Your task to perform on an android device: toggle data saver in the chrome app Image 0: 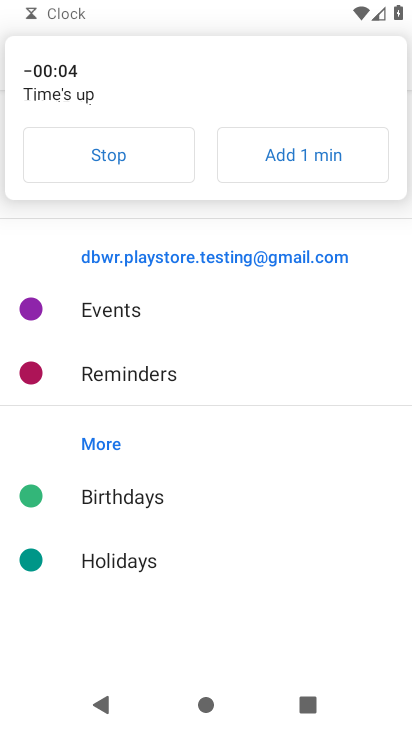
Step 0: press home button
Your task to perform on an android device: toggle data saver in the chrome app Image 1: 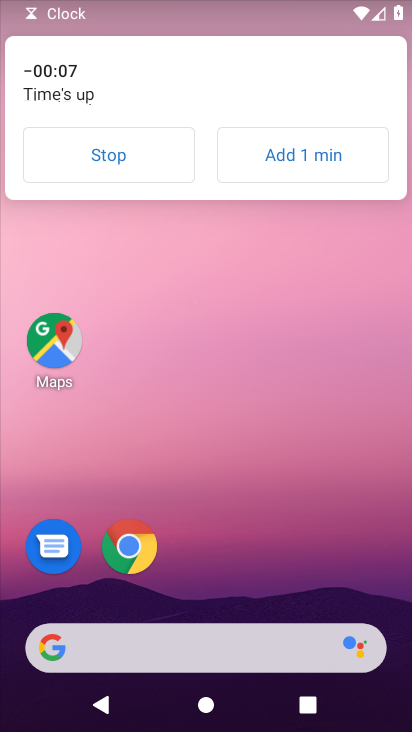
Step 1: click (132, 149)
Your task to perform on an android device: toggle data saver in the chrome app Image 2: 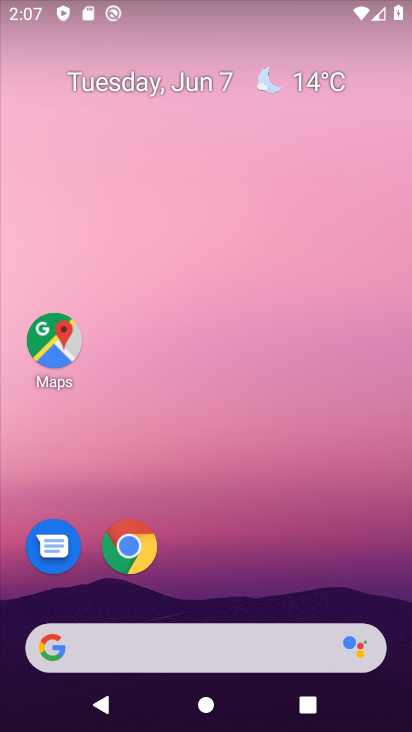
Step 2: click (134, 561)
Your task to perform on an android device: toggle data saver in the chrome app Image 3: 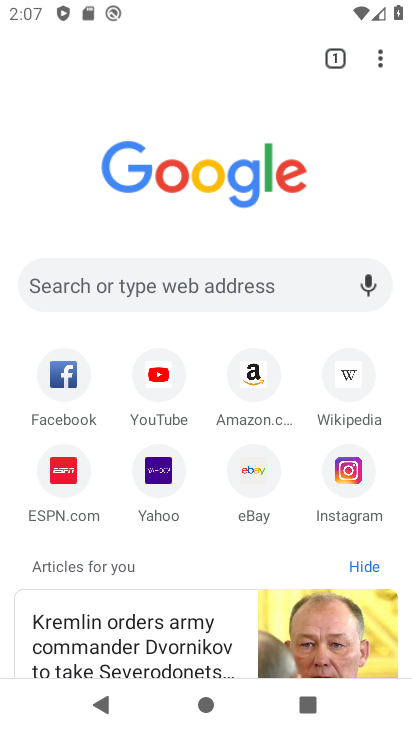
Step 3: click (389, 57)
Your task to perform on an android device: toggle data saver in the chrome app Image 4: 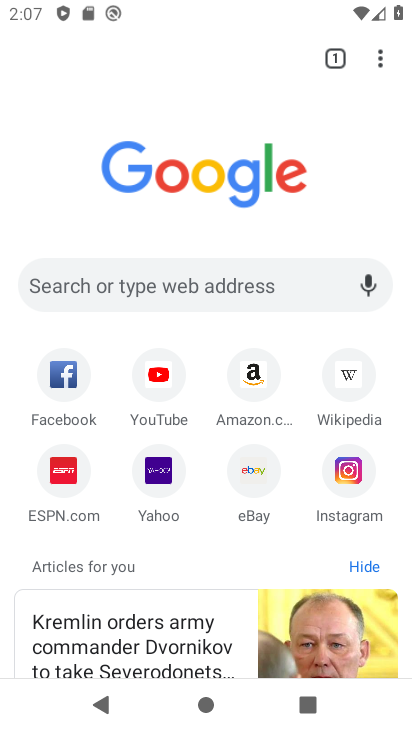
Step 4: click (389, 57)
Your task to perform on an android device: toggle data saver in the chrome app Image 5: 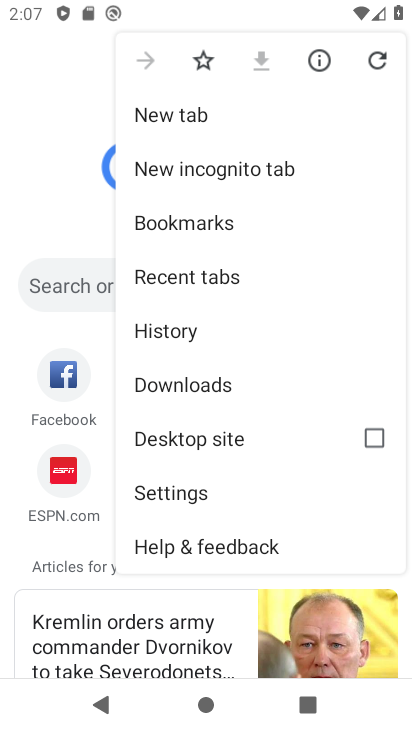
Step 5: click (208, 485)
Your task to perform on an android device: toggle data saver in the chrome app Image 6: 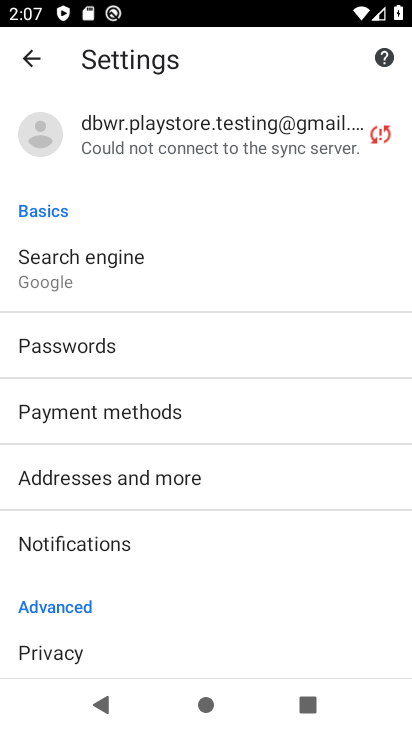
Step 6: drag from (134, 518) to (141, 195)
Your task to perform on an android device: toggle data saver in the chrome app Image 7: 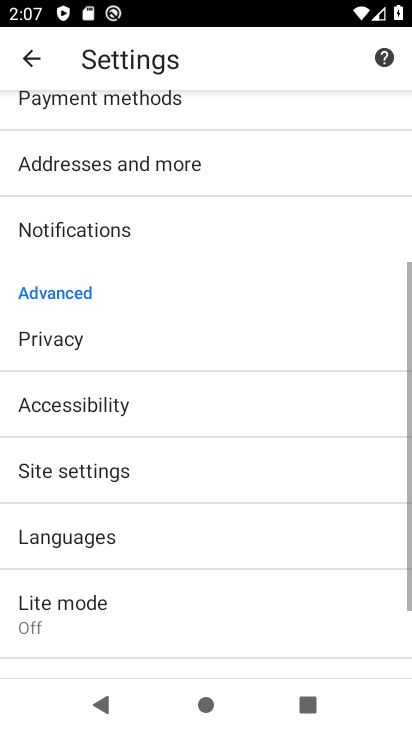
Step 7: drag from (79, 652) to (124, 206)
Your task to perform on an android device: toggle data saver in the chrome app Image 8: 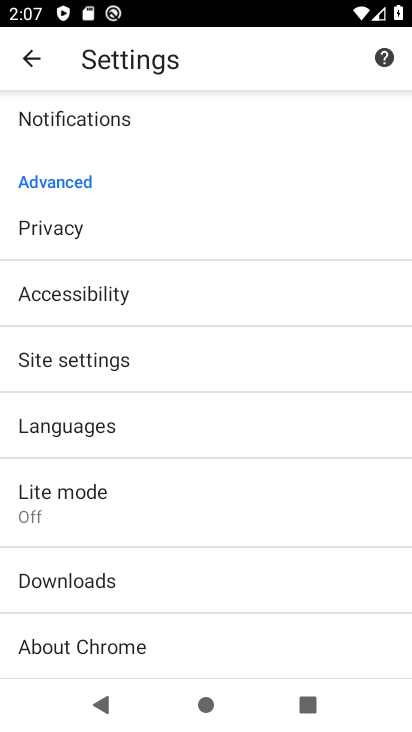
Step 8: click (77, 509)
Your task to perform on an android device: toggle data saver in the chrome app Image 9: 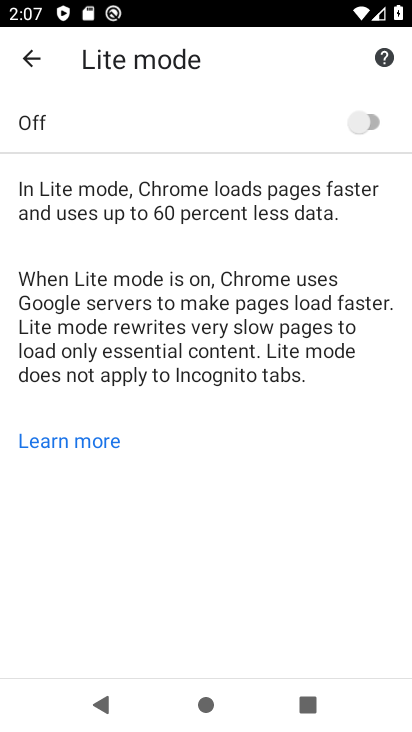
Step 9: click (369, 130)
Your task to perform on an android device: toggle data saver in the chrome app Image 10: 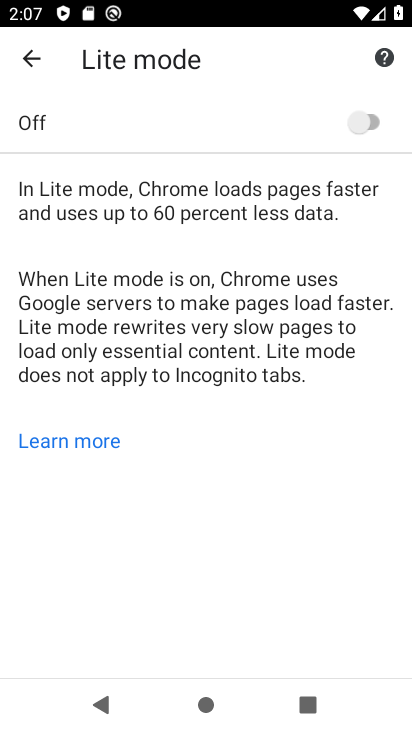
Step 10: click (369, 130)
Your task to perform on an android device: toggle data saver in the chrome app Image 11: 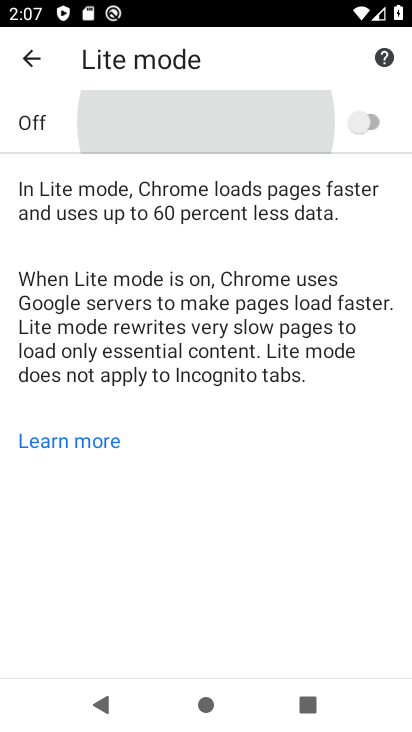
Step 11: click (369, 130)
Your task to perform on an android device: toggle data saver in the chrome app Image 12: 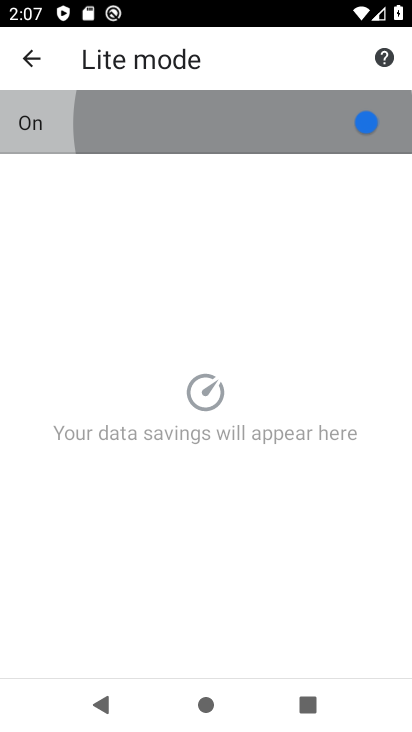
Step 12: click (369, 130)
Your task to perform on an android device: toggle data saver in the chrome app Image 13: 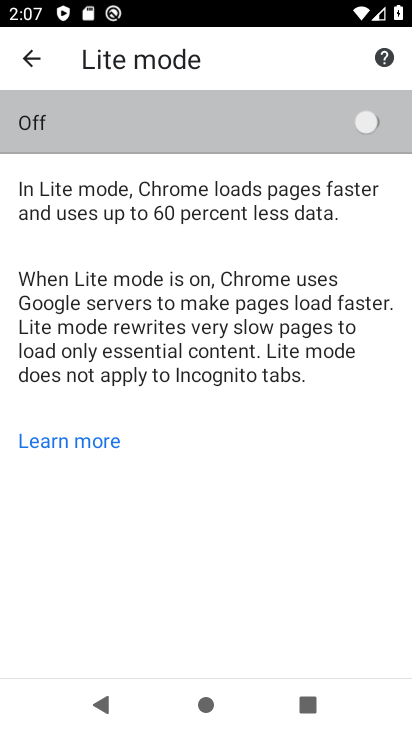
Step 13: click (369, 130)
Your task to perform on an android device: toggle data saver in the chrome app Image 14: 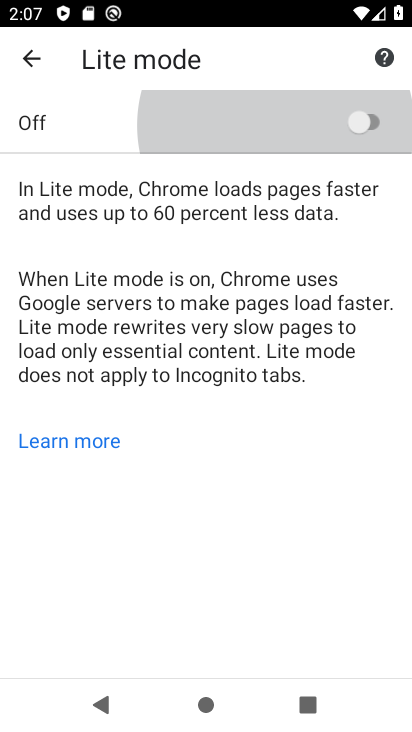
Step 14: click (369, 130)
Your task to perform on an android device: toggle data saver in the chrome app Image 15: 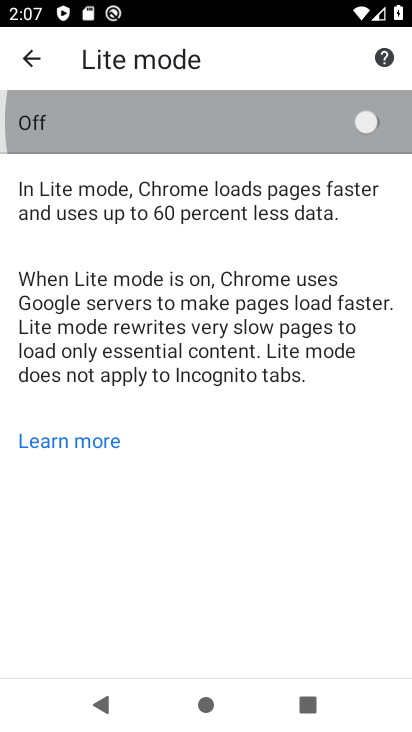
Step 15: click (369, 130)
Your task to perform on an android device: toggle data saver in the chrome app Image 16: 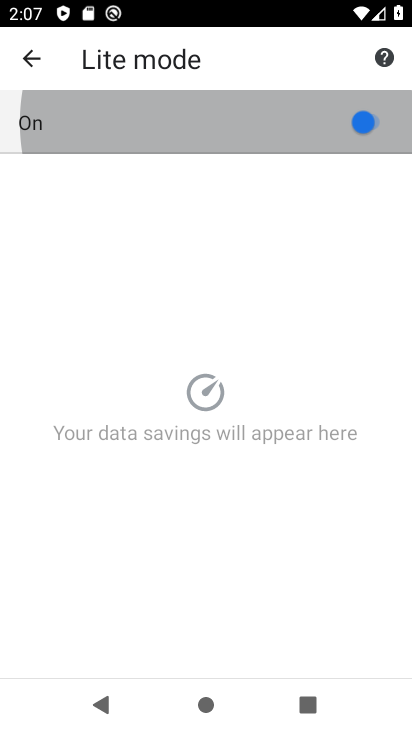
Step 16: click (369, 130)
Your task to perform on an android device: toggle data saver in the chrome app Image 17: 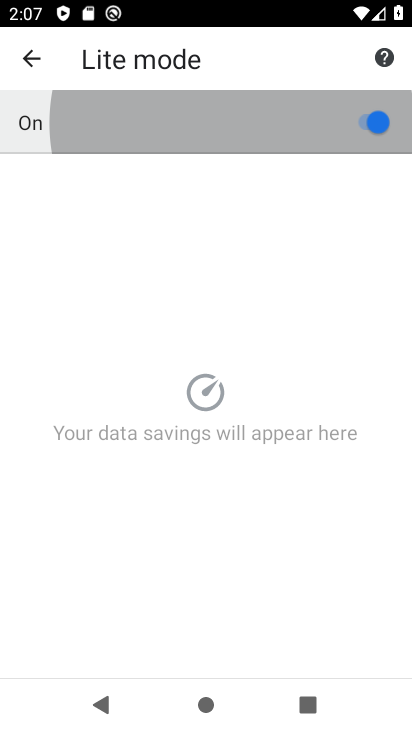
Step 17: click (369, 130)
Your task to perform on an android device: toggle data saver in the chrome app Image 18: 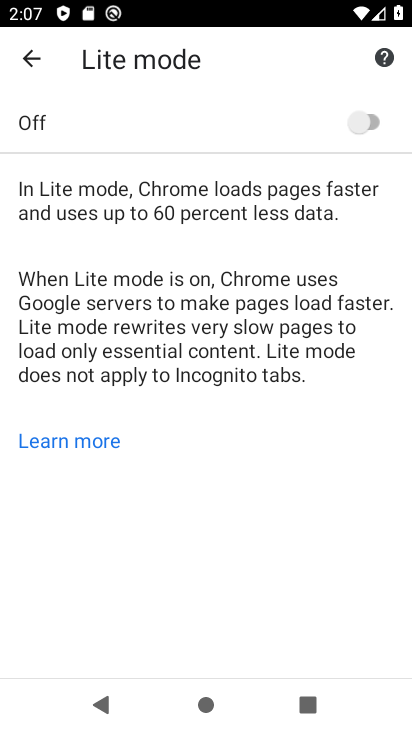
Step 18: click (369, 130)
Your task to perform on an android device: toggle data saver in the chrome app Image 19: 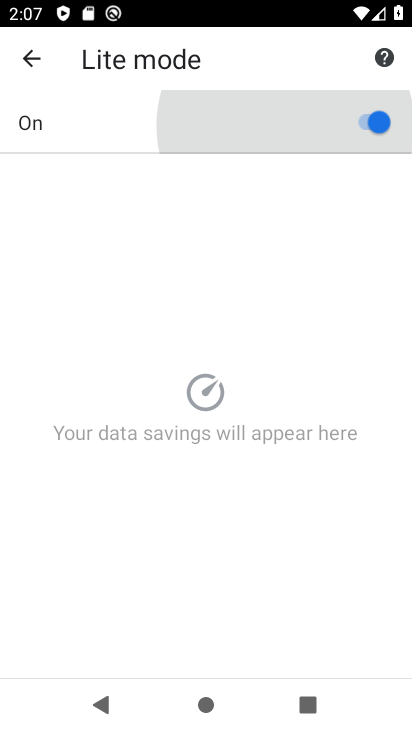
Step 19: click (369, 130)
Your task to perform on an android device: toggle data saver in the chrome app Image 20: 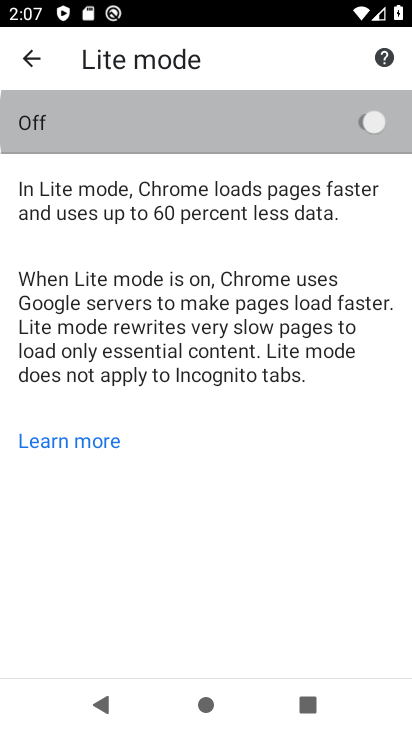
Step 20: click (369, 130)
Your task to perform on an android device: toggle data saver in the chrome app Image 21: 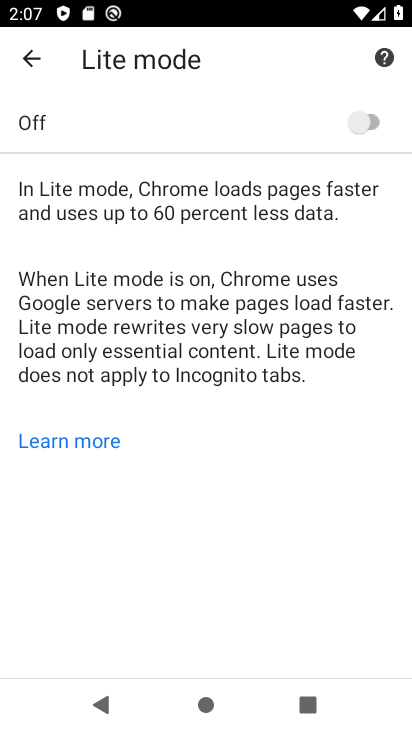
Step 21: task complete